Your task to perform on an android device: Search for bose soundsport free on newegg.com, select the first entry, add it to the cart, then select checkout. Image 0: 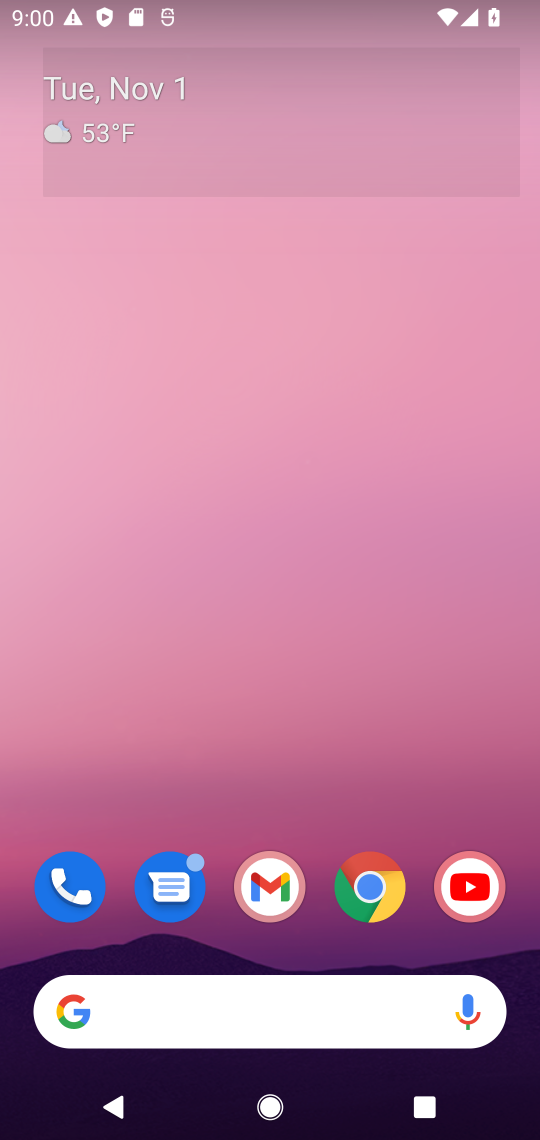
Step 0: drag from (315, 939) to (315, 258)
Your task to perform on an android device: Search for bose soundsport free on newegg.com, select the first entry, add it to the cart, then select checkout. Image 1: 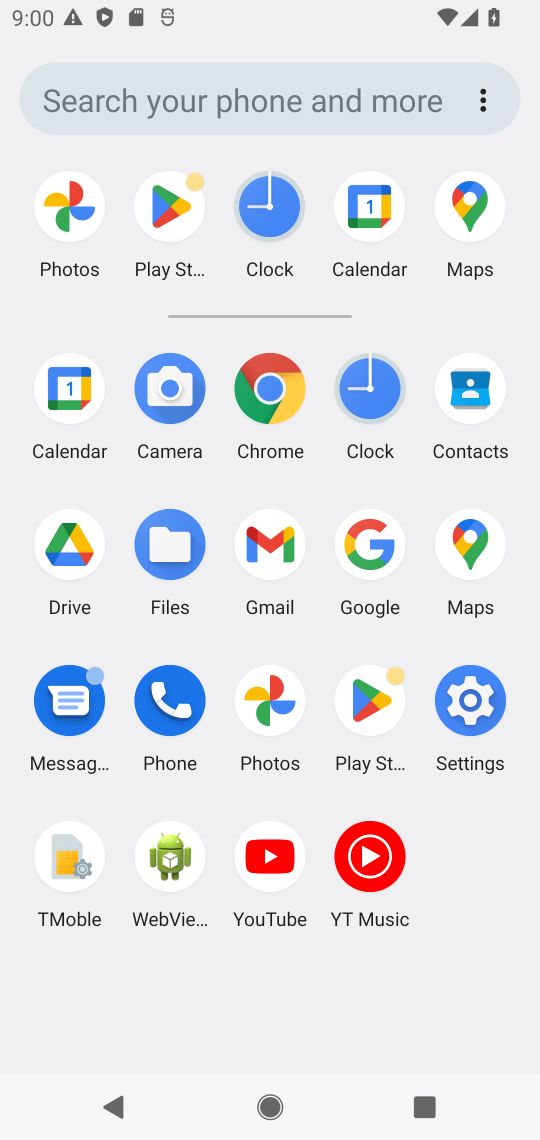
Step 1: click (366, 533)
Your task to perform on an android device: Search for bose soundsport free on newegg.com, select the first entry, add it to the cart, then select checkout. Image 2: 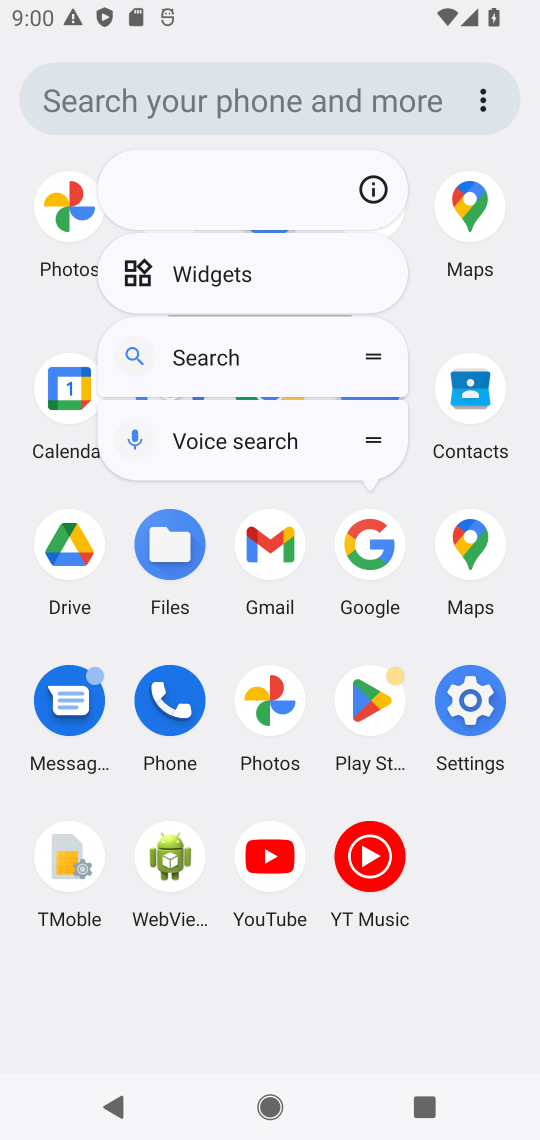
Step 2: click (366, 533)
Your task to perform on an android device: Search for bose soundsport free on newegg.com, select the first entry, add it to the cart, then select checkout. Image 3: 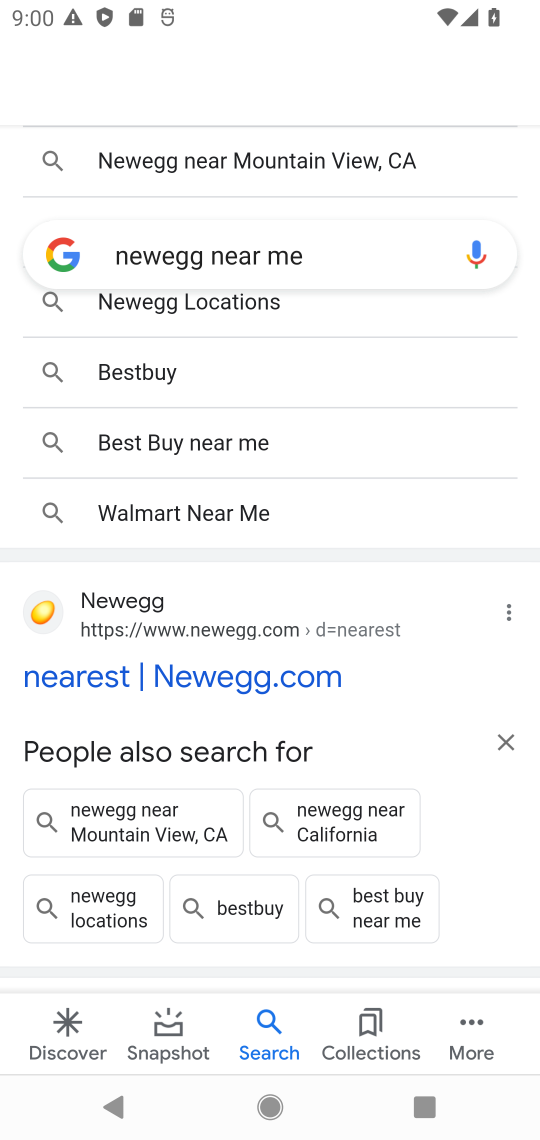
Step 3: click (250, 244)
Your task to perform on an android device: Search for bose soundsport free on newegg.com, select the first entry, add it to the cart, then select checkout. Image 4: 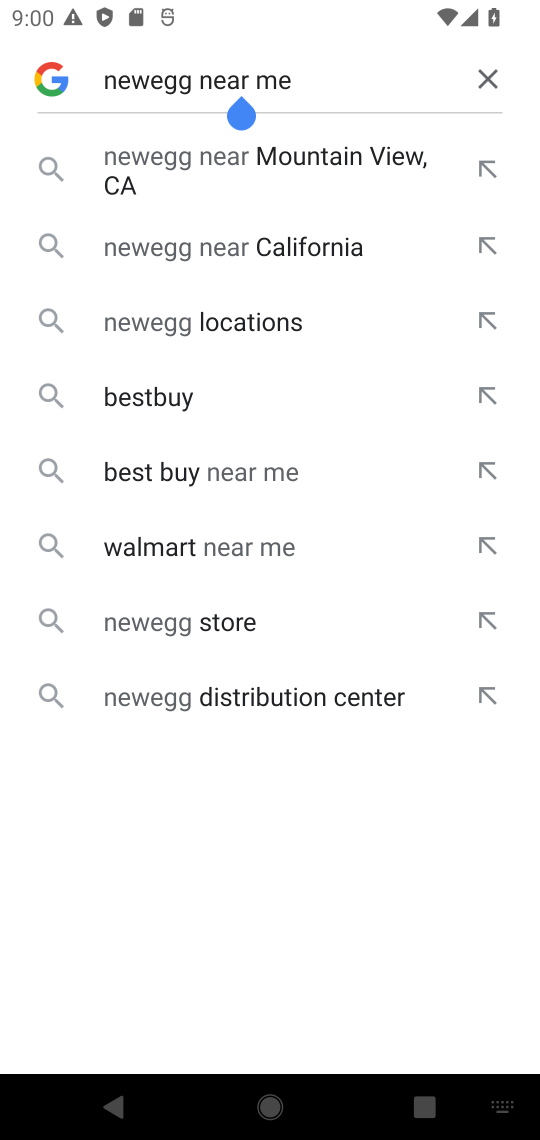
Step 4: click (498, 79)
Your task to perform on an android device: Search for bose soundsport free on newegg.com, select the first entry, add it to the cart, then select checkout. Image 5: 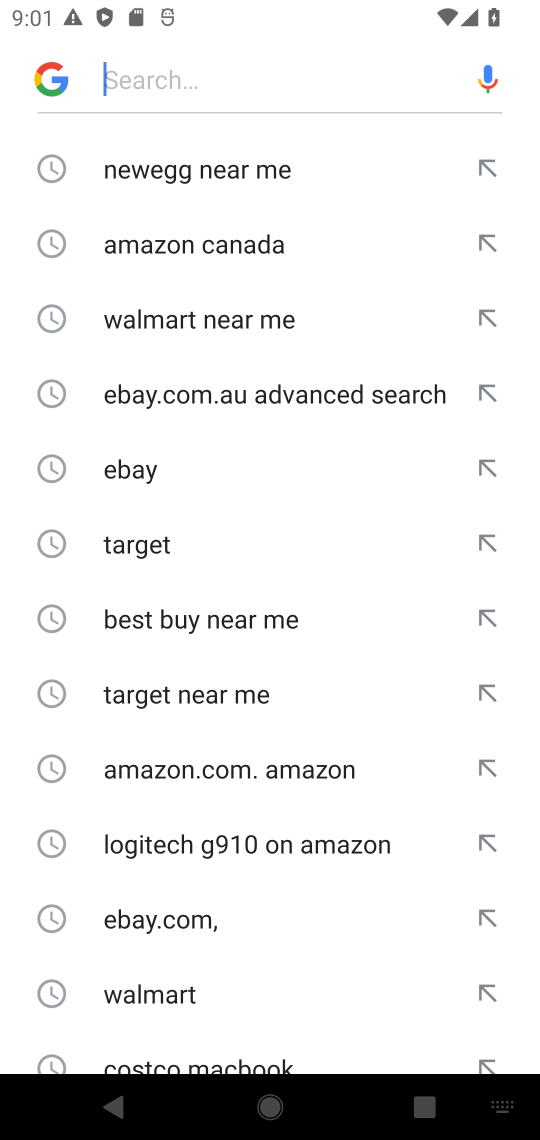
Step 5: click (243, 82)
Your task to perform on an android device: Search for bose soundsport free on newegg.com, select the first entry, add it to the cart, then select checkout. Image 6: 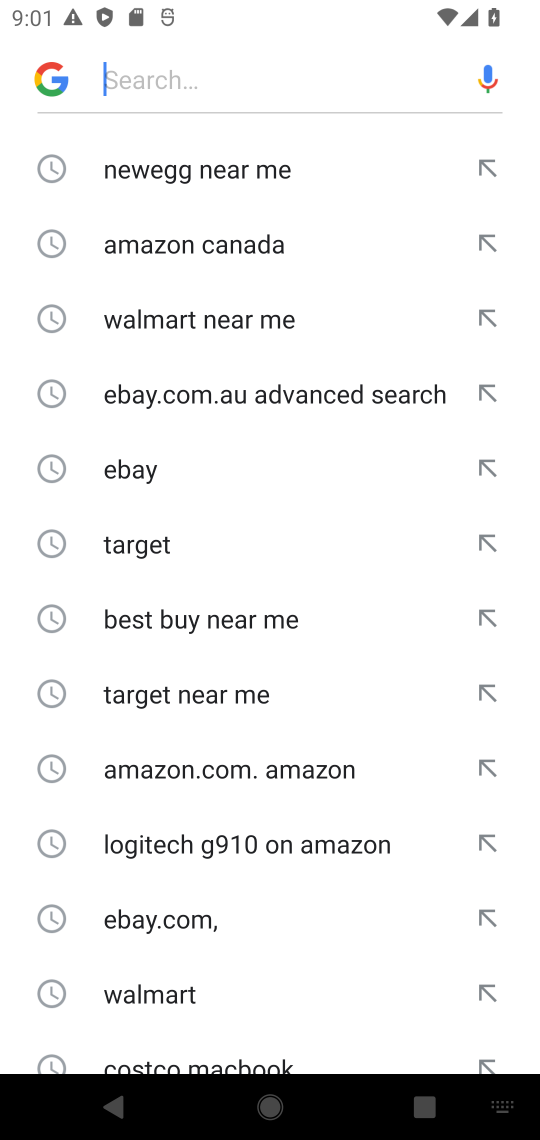
Step 6: type "newegg "
Your task to perform on an android device: Search for bose soundsport free on newegg.com, select the first entry, add it to the cart, then select checkout. Image 7: 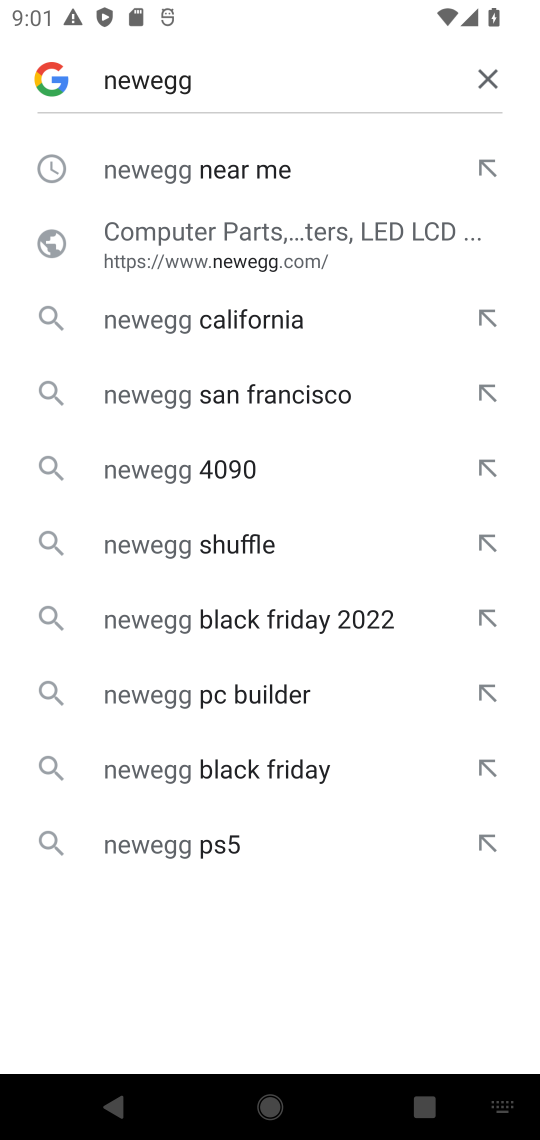
Step 7: click (175, 171)
Your task to perform on an android device: Search for bose soundsport free on newegg.com, select the first entry, add it to the cart, then select checkout. Image 8: 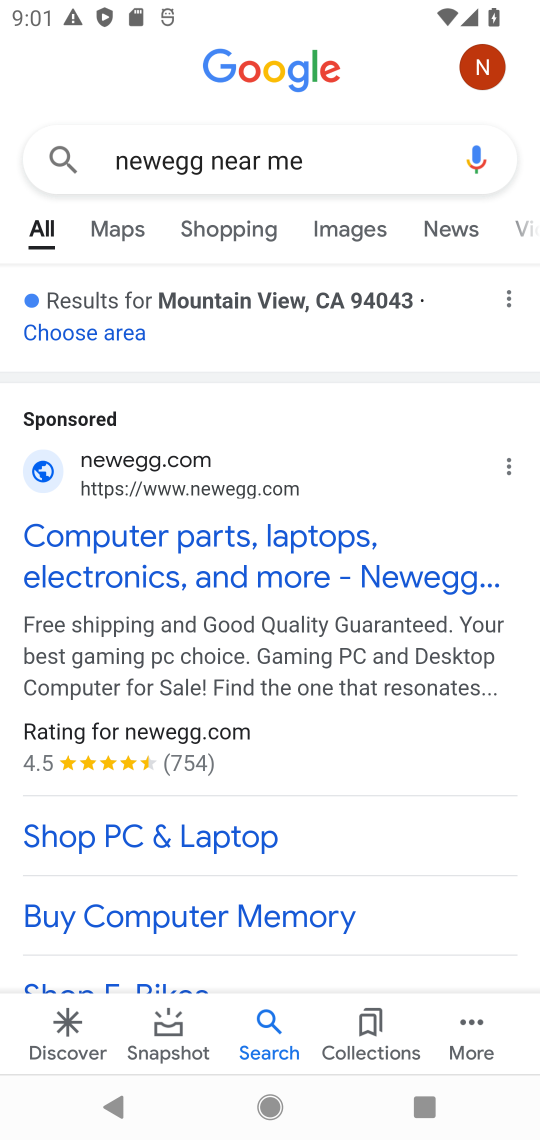
Step 8: drag from (195, 808) to (338, 290)
Your task to perform on an android device: Search for bose soundsport free on newegg.com, select the first entry, add it to the cart, then select checkout. Image 9: 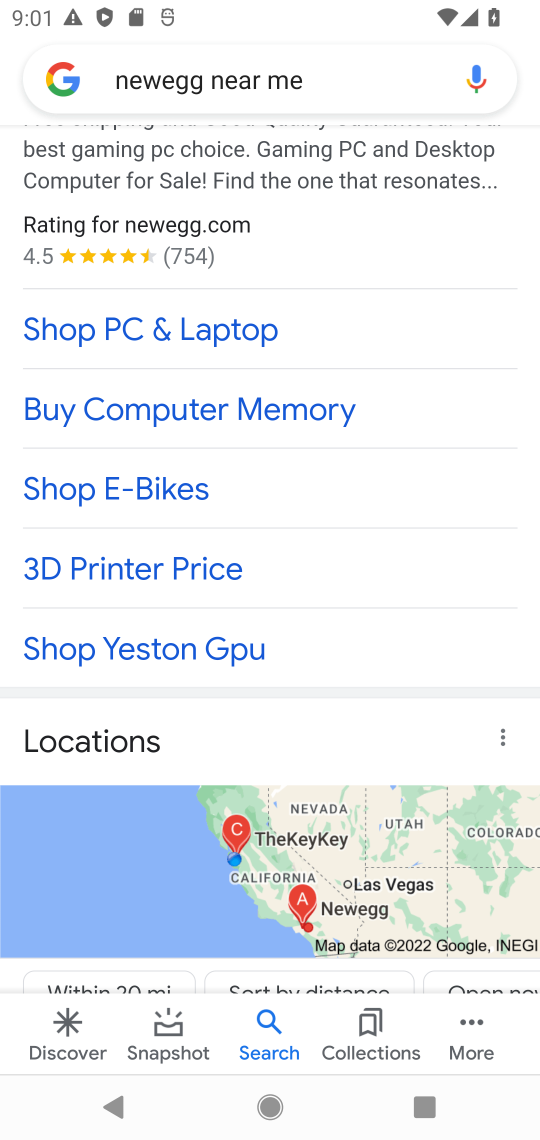
Step 9: drag from (320, 895) to (399, 99)
Your task to perform on an android device: Search for bose soundsport free on newegg.com, select the first entry, add it to the cart, then select checkout. Image 10: 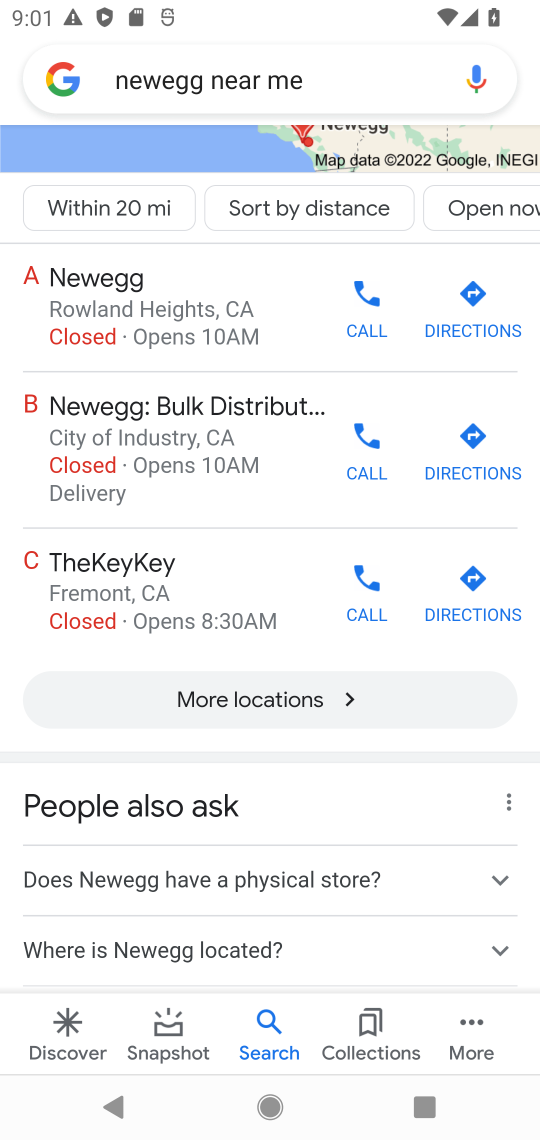
Step 10: drag from (310, 752) to (319, 216)
Your task to perform on an android device: Search for bose soundsport free on newegg.com, select the first entry, add it to the cart, then select checkout. Image 11: 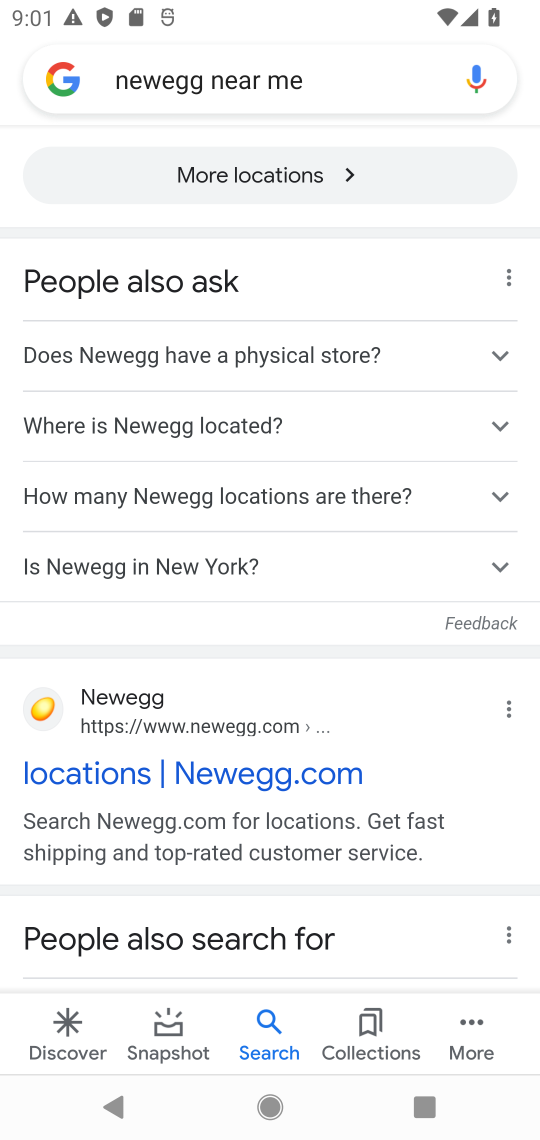
Step 11: click (39, 711)
Your task to perform on an android device: Search for bose soundsport free on newegg.com, select the first entry, add it to the cart, then select checkout. Image 12: 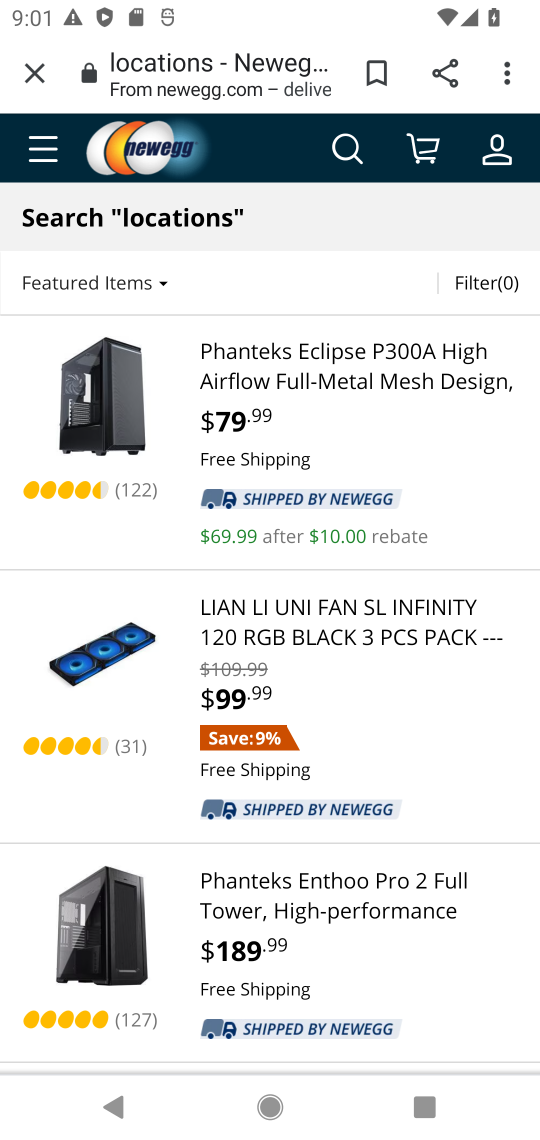
Step 12: click (332, 140)
Your task to perform on an android device: Search for bose soundsport free on newegg.com, select the first entry, add it to the cart, then select checkout. Image 13: 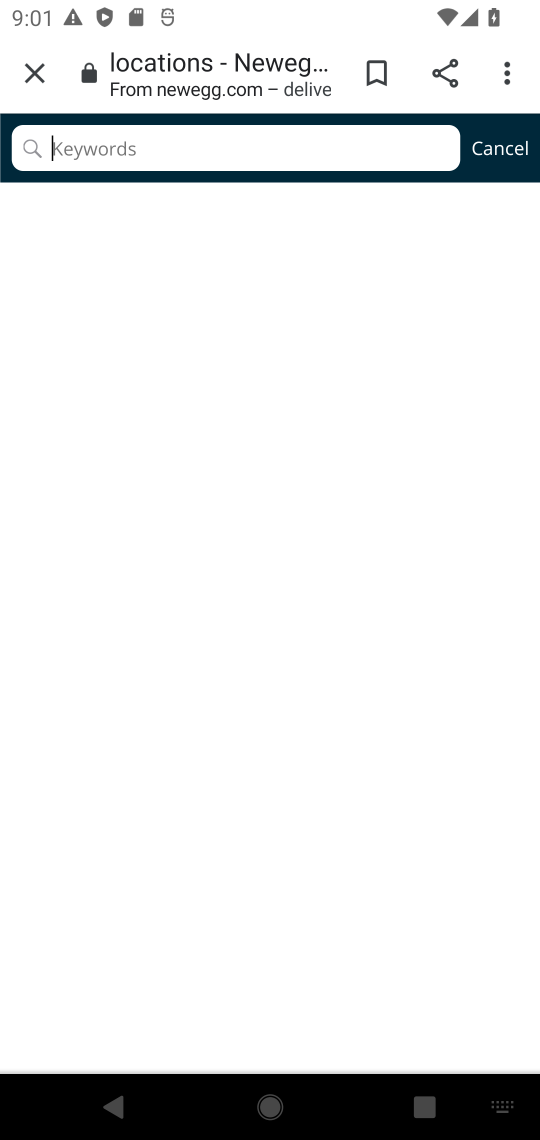
Step 13: type " bose soundsport  "
Your task to perform on an android device: Search for bose soundsport free on newegg.com, select the first entry, add it to the cart, then select checkout. Image 14: 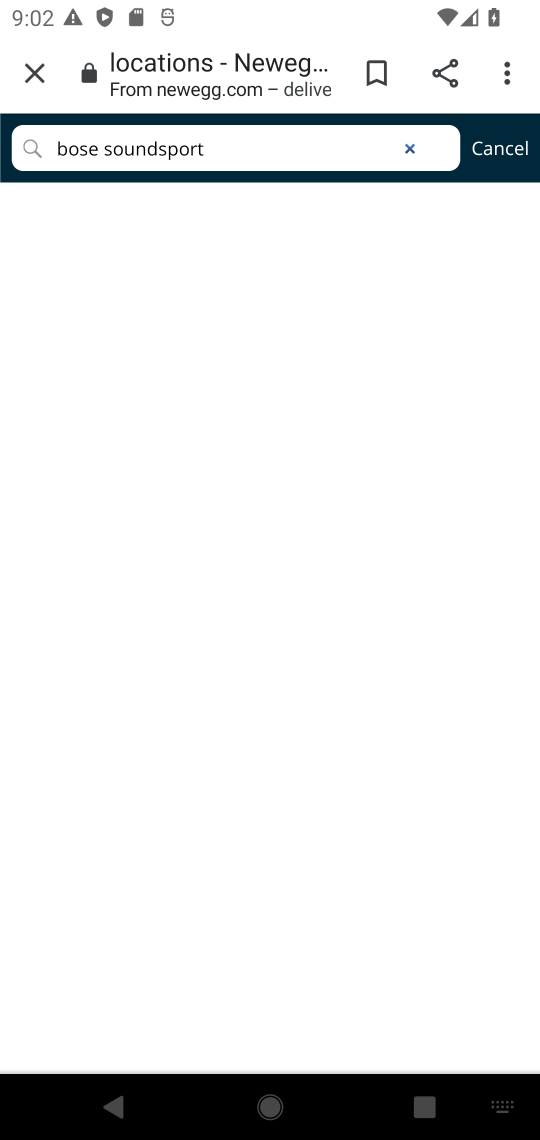
Step 14: task complete